Your task to perform on an android device: turn off notifications in google photos Image 0: 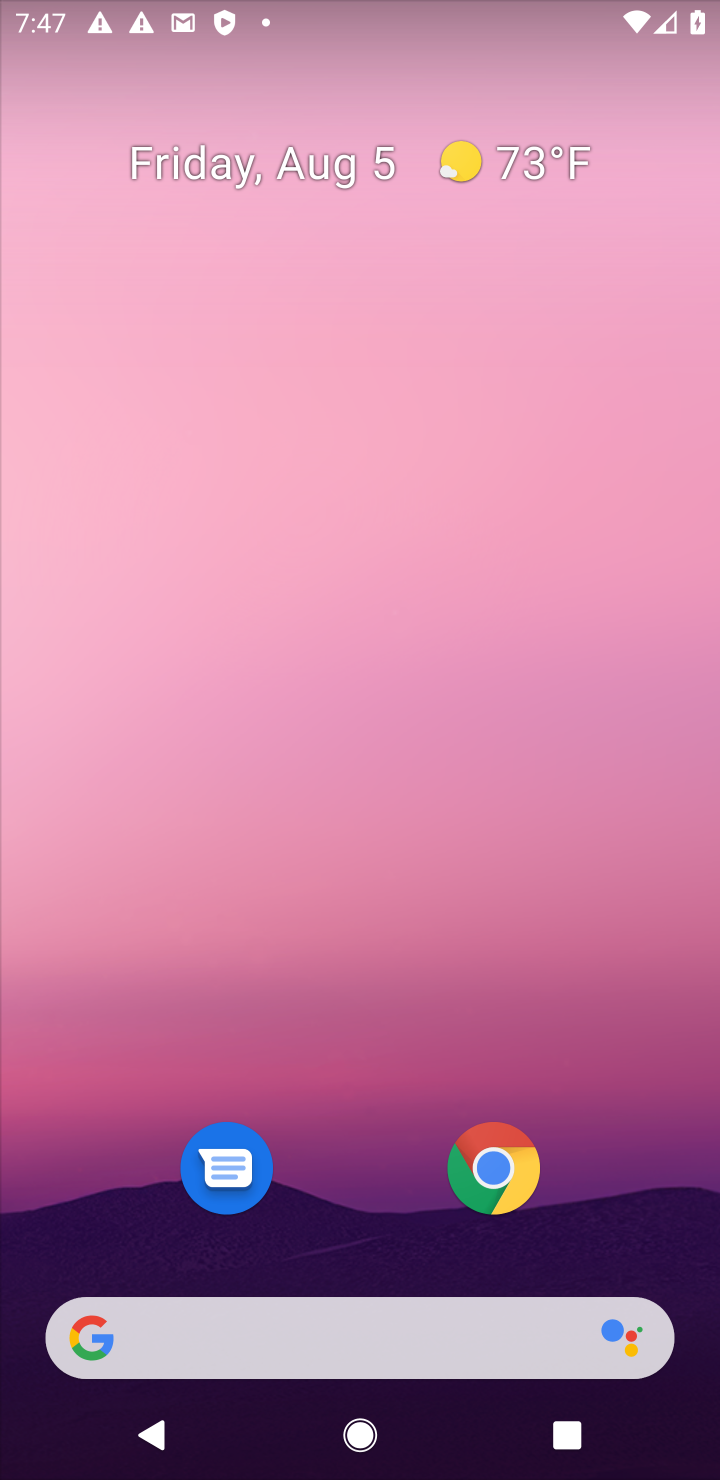
Step 0: drag from (425, 1269) to (492, 316)
Your task to perform on an android device: turn off notifications in google photos Image 1: 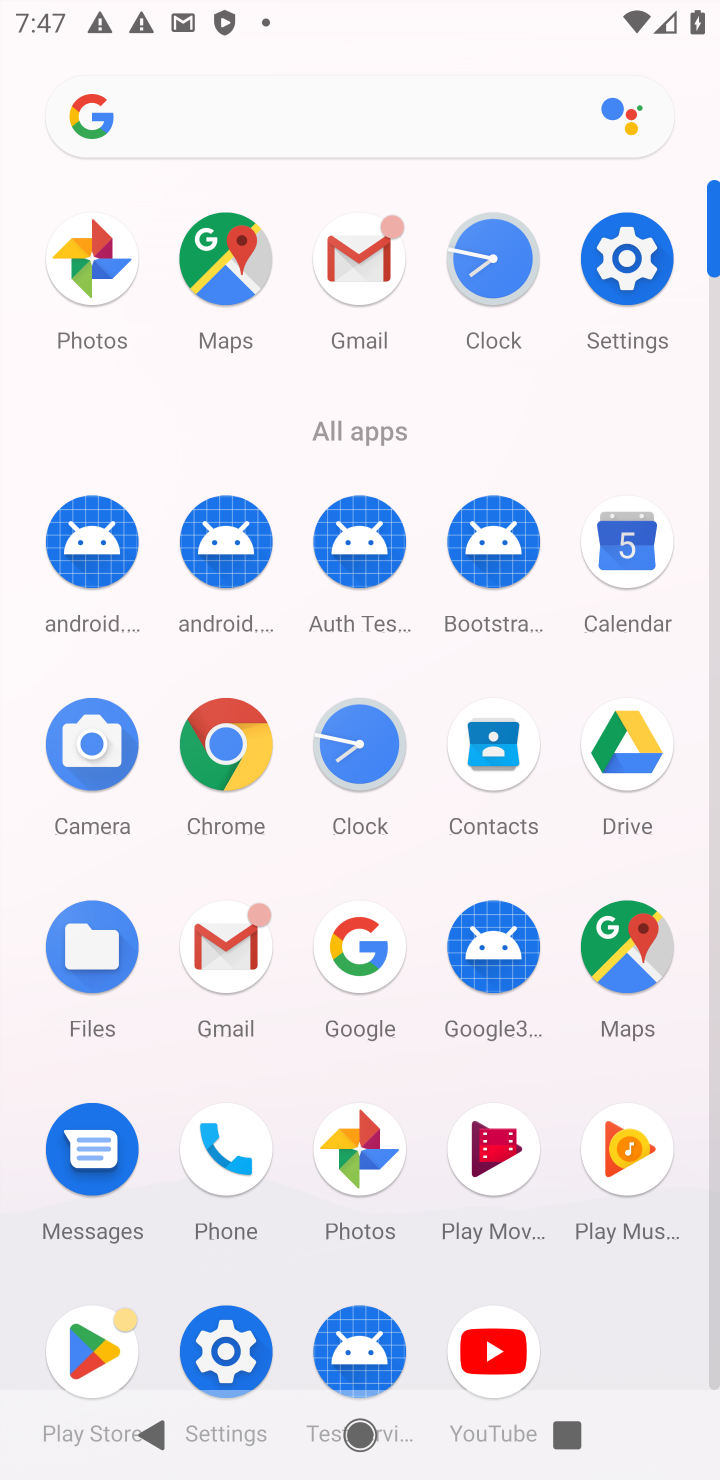
Step 1: click (92, 272)
Your task to perform on an android device: turn off notifications in google photos Image 2: 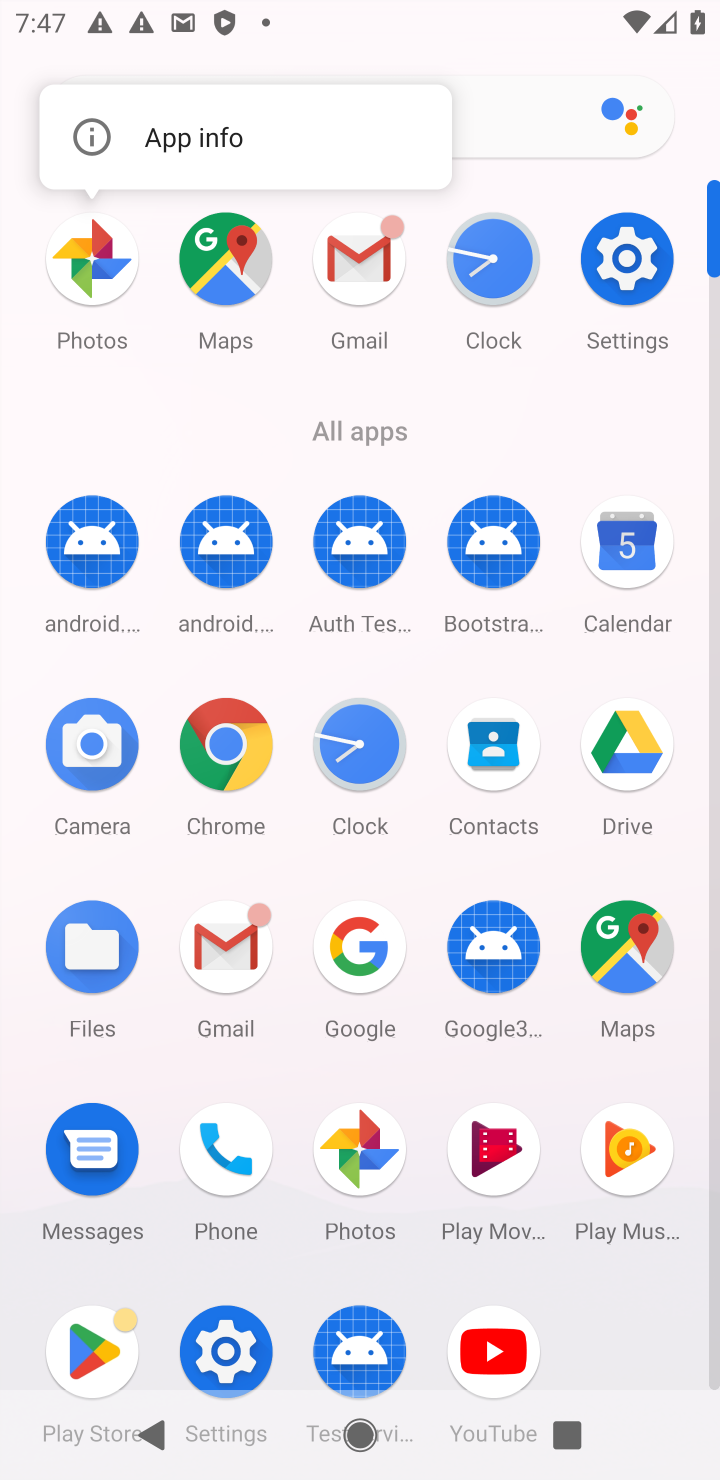
Step 2: click (110, 278)
Your task to perform on an android device: turn off notifications in google photos Image 3: 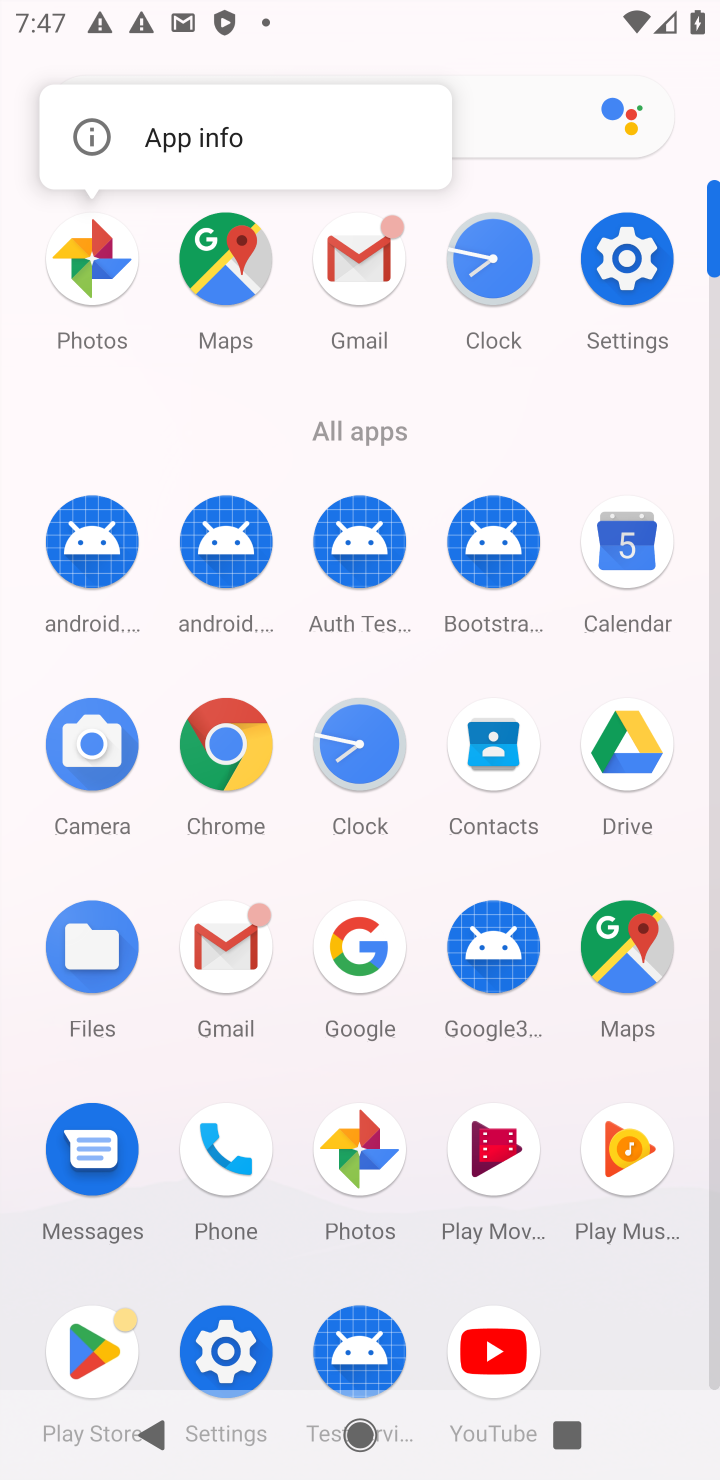
Step 3: click (88, 249)
Your task to perform on an android device: turn off notifications in google photos Image 4: 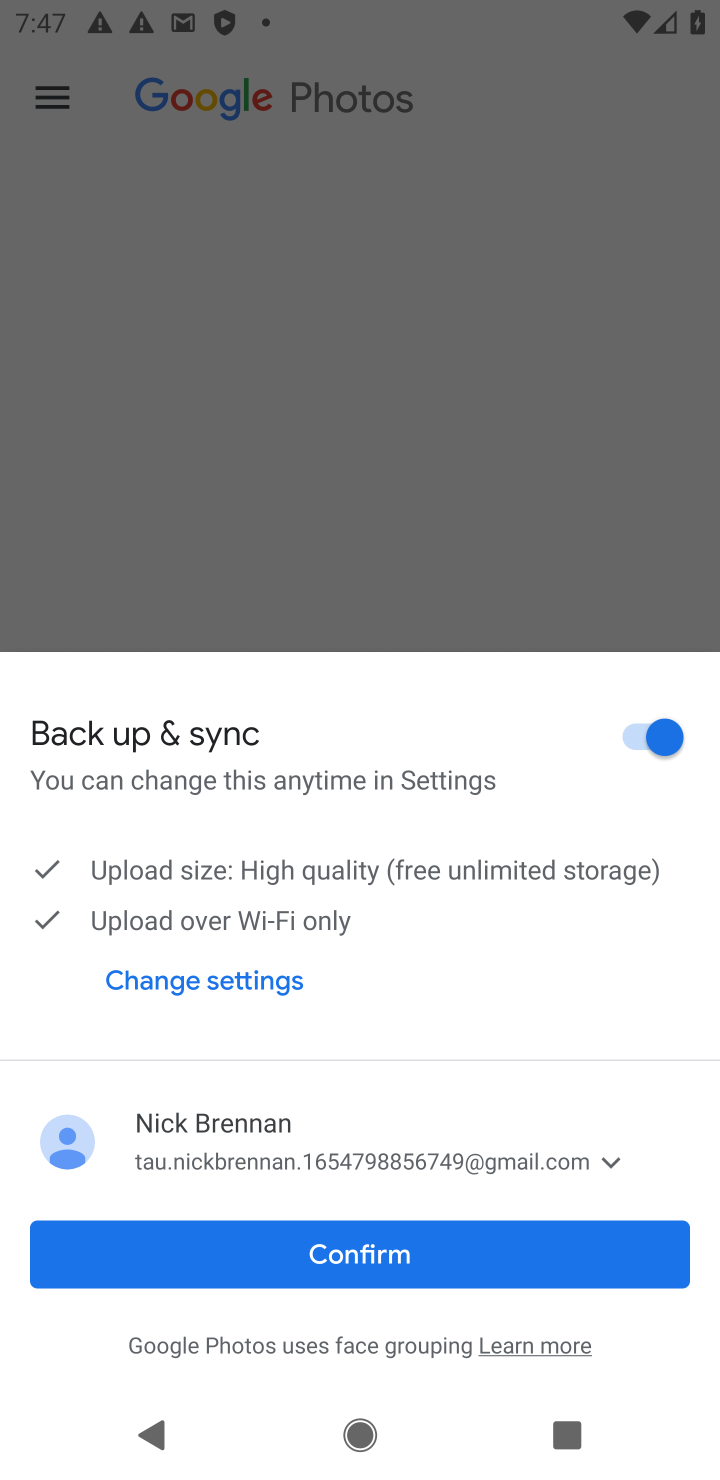
Step 4: click (370, 1264)
Your task to perform on an android device: turn off notifications in google photos Image 5: 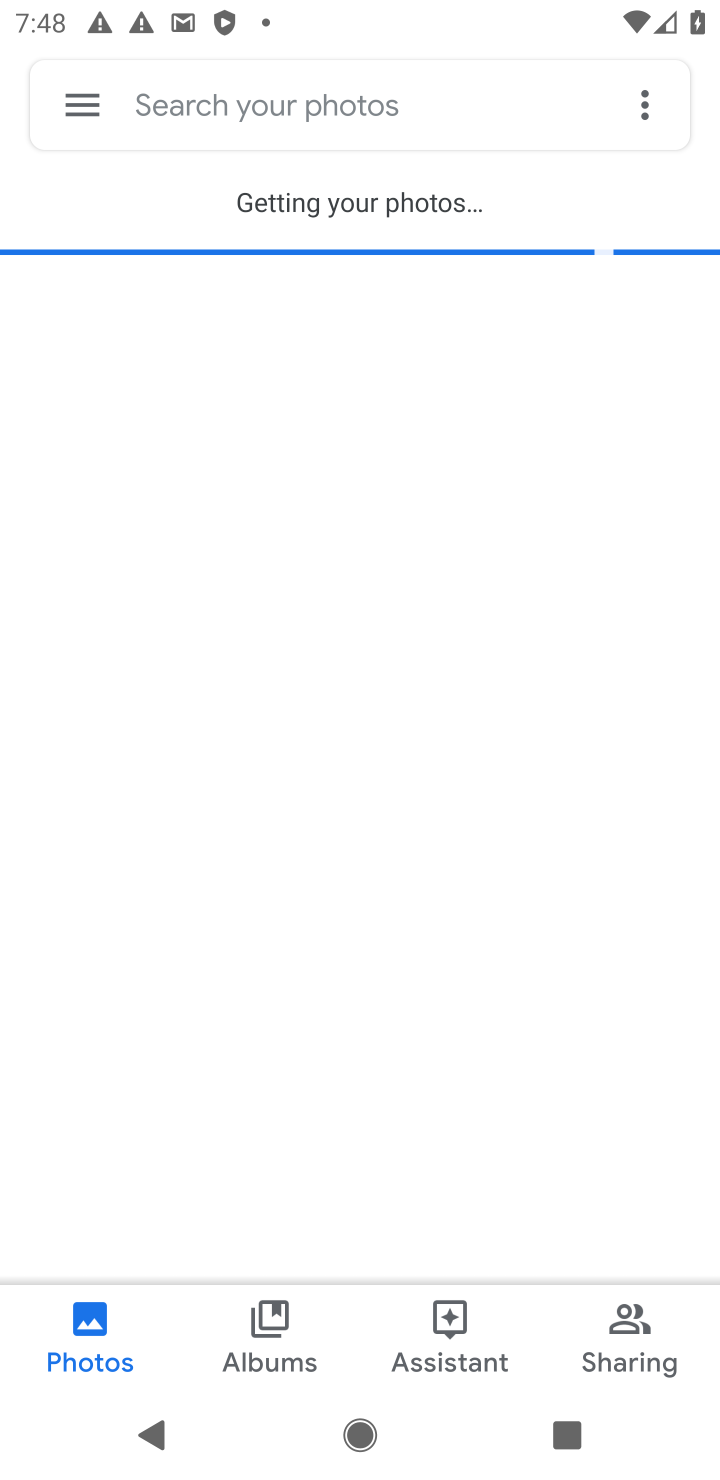
Step 5: click (81, 111)
Your task to perform on an android device: turn off notifications in google photos Image 6: 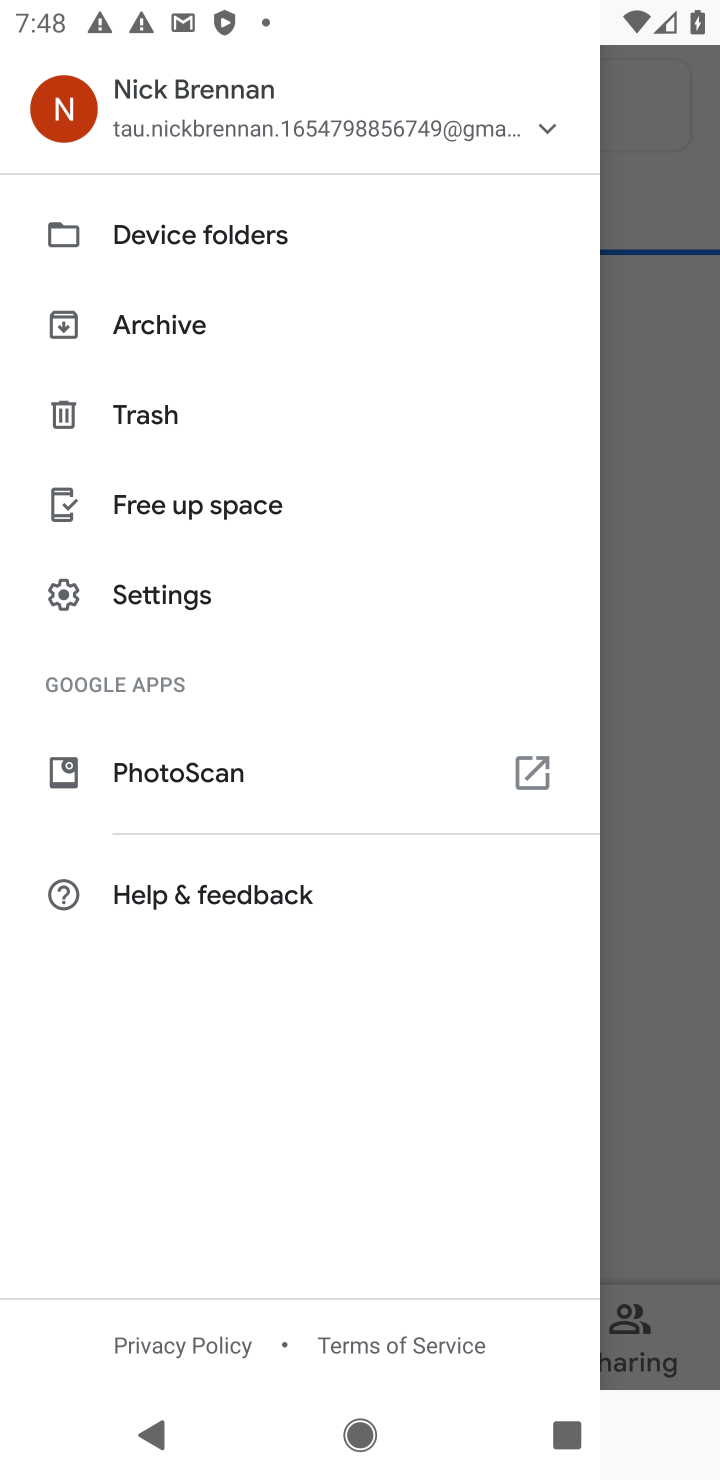
Step 6: click (224, 585)
Your task to perform on an android device: turn off notifications in google photos Image 7: 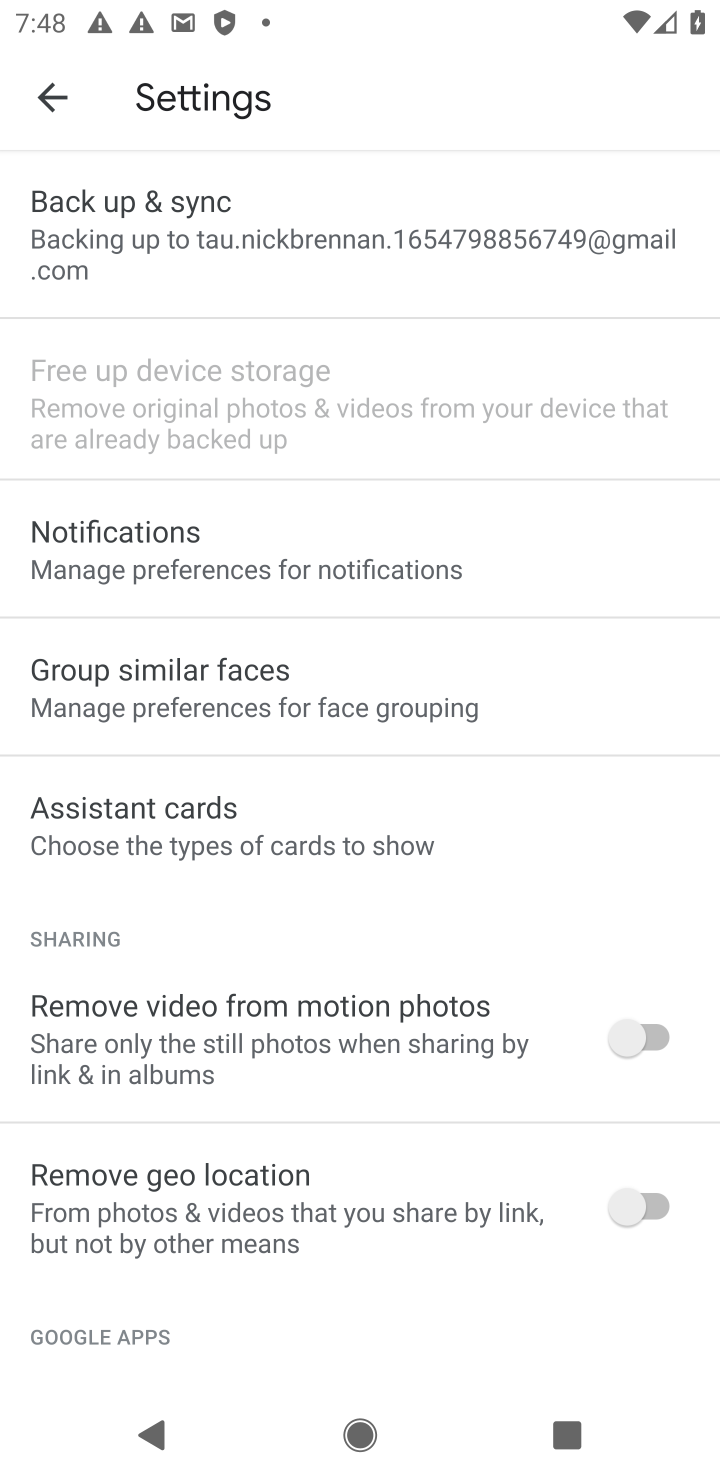
Step 7: click (221, 561)
Your task to perform on an android device: turn off notifications in google photos Image 8: 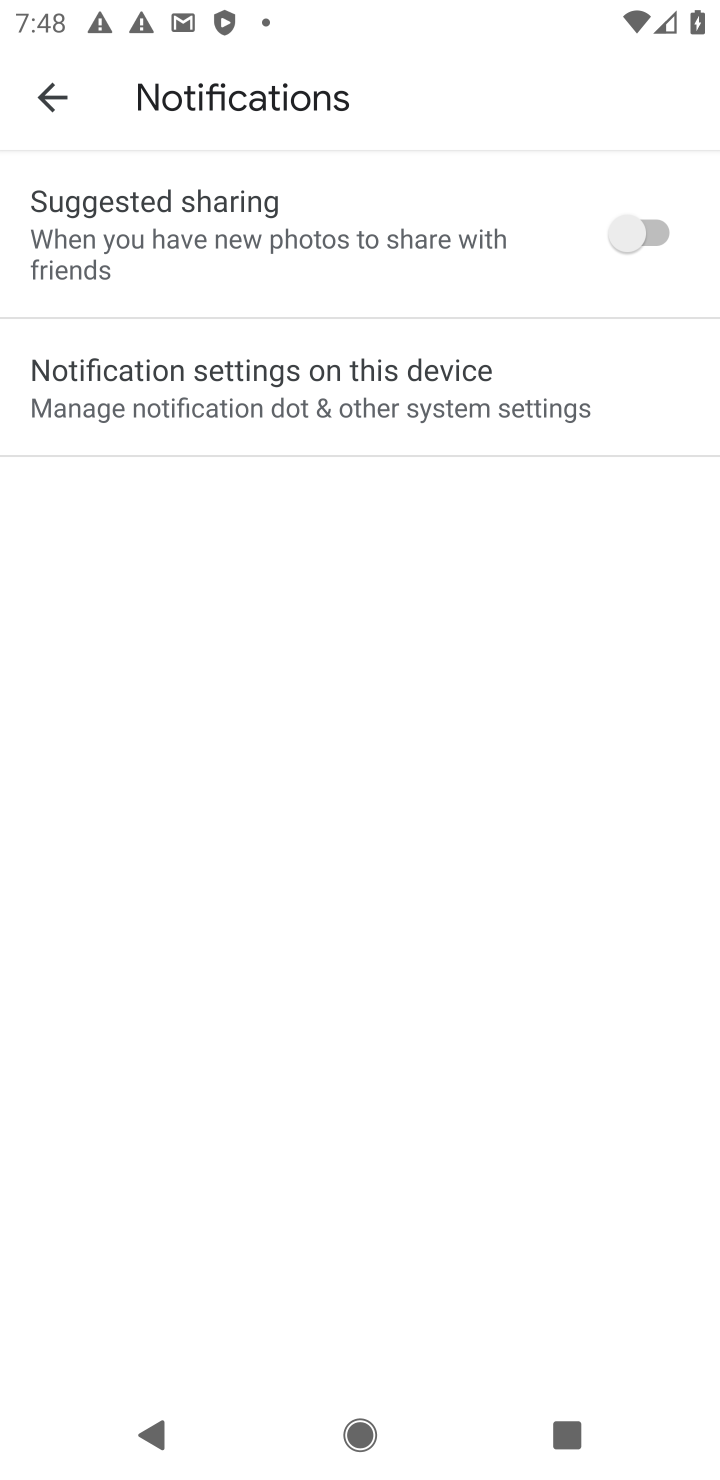
Step 8: click (315, 406)
Your task to perform on an android device: turn off notifications in google photos Image 9: 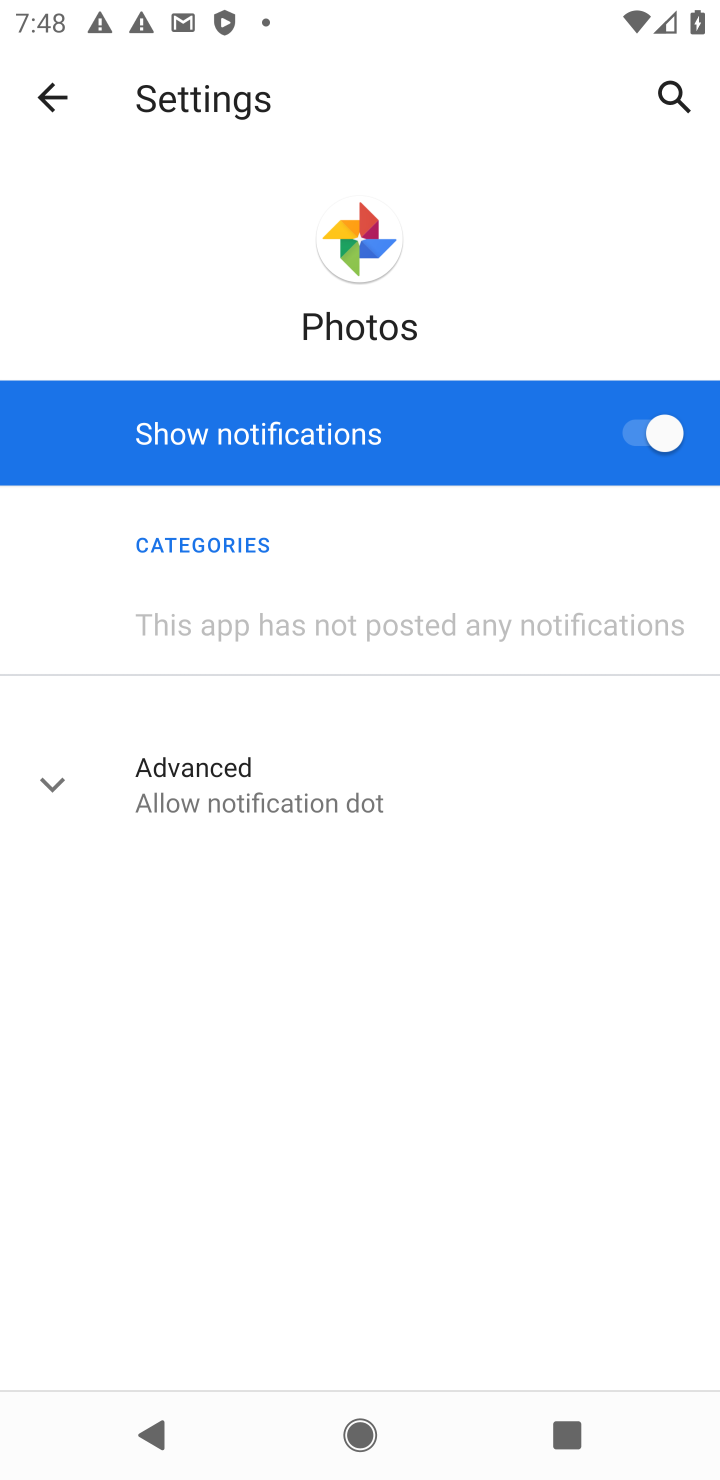
Step 9: click (662, 438)
Your task to perform on an android device: turn off notifications in google photos Image 10: 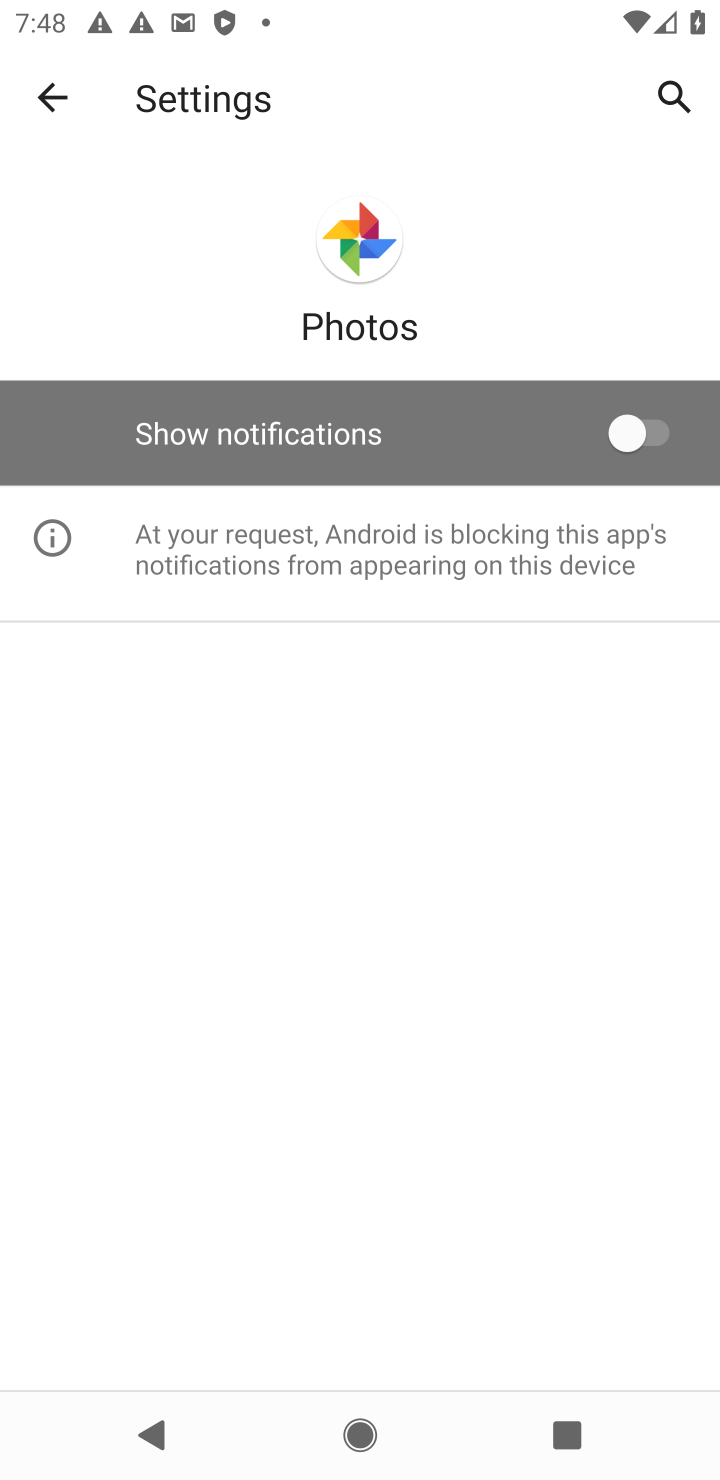
Step 10: task complete